Your task to perform on an android device: add a contact in the contacts app Image 0: 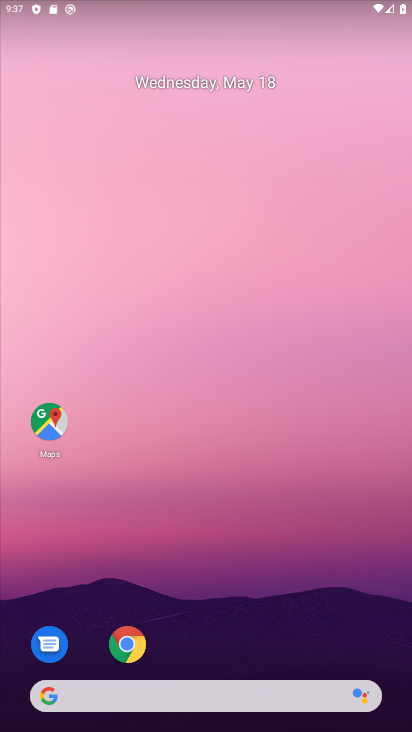
Step 0: drag from (288, 604) to (269, 128)
Your task to perform on an android device: add a contact in the contacts app Image 1: 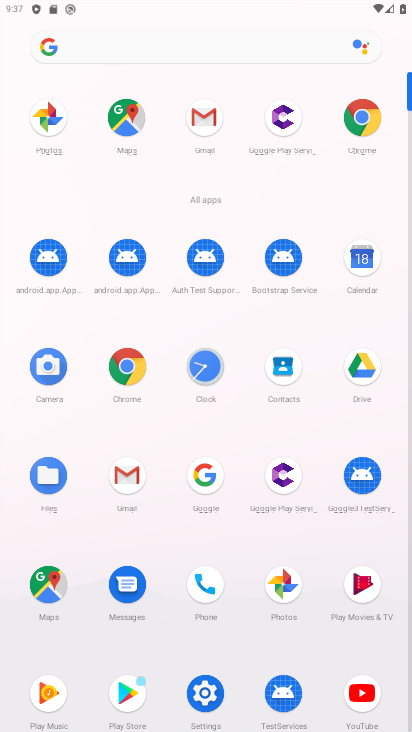
Step 1: click (288, 369)
Your task to perform on an android device: add a contact in the contacts app Image 2: 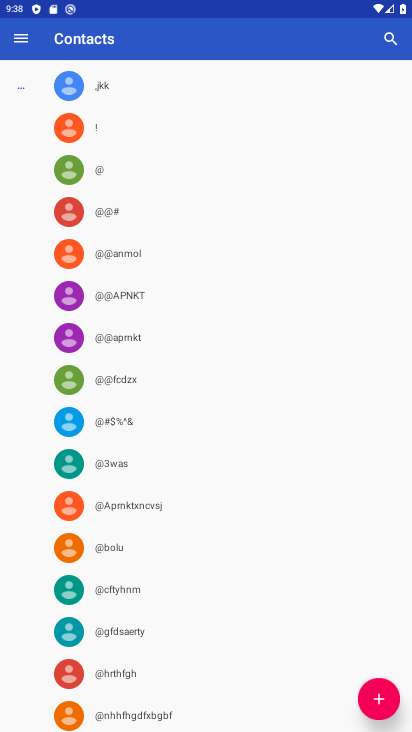
Step 2: click (375, 700)
Your task to perform on an android device: add a contact in the contacts app Image 3: 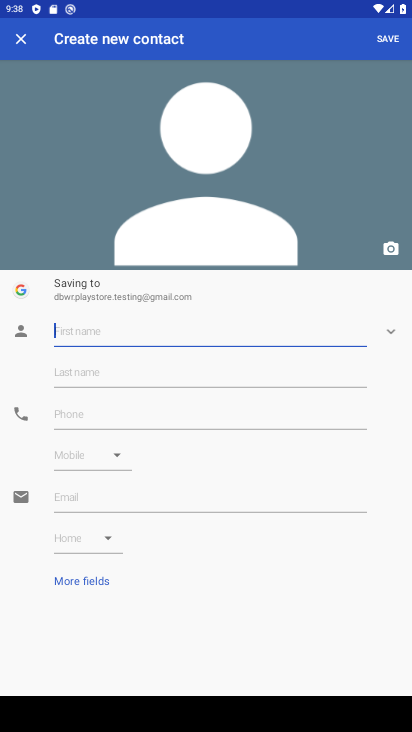
Step 3: click (252, 343)
Your task to perform on an android device: add a contact in the contacts app Image 4: 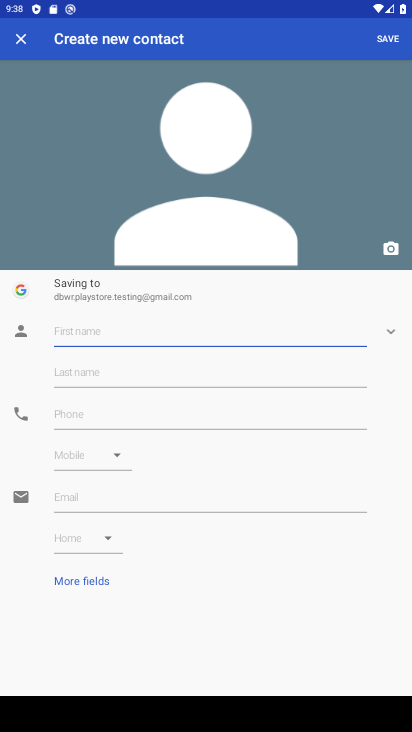
Step 4: click (257, 334)
Your task to perform on an android device: add a contact in the contacts app Image 5: 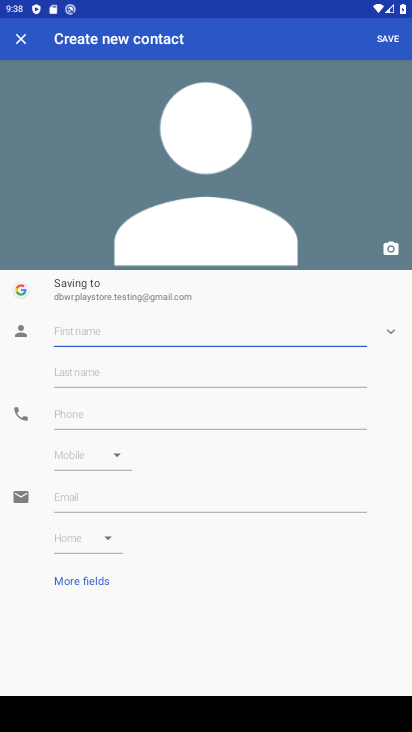
Step 5: type "nffhff"
Your task to perform on an android device: add a contact in the contacts app Image 6: 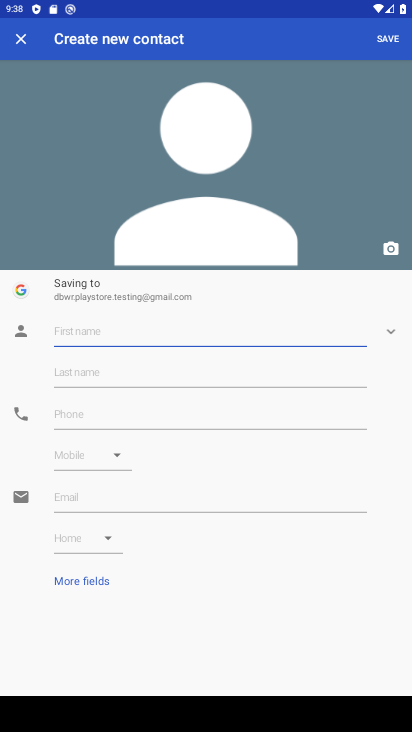
Step 6: click (383, 40)
Your task to perform on an android device: add a contact in the contacts app Image 7: 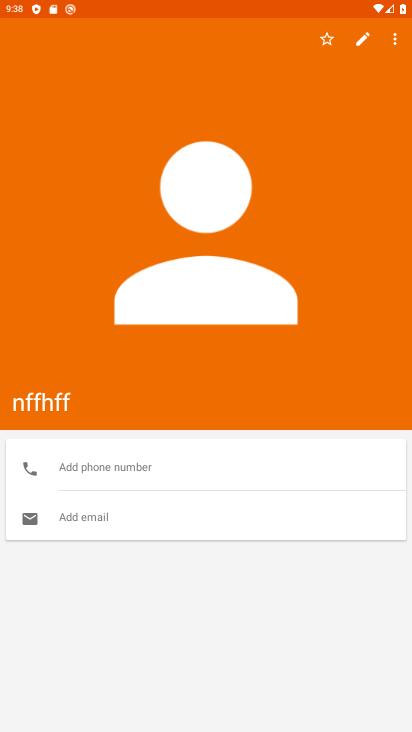
Step 7: task complete